Your task to perform on an android device: Open Google Maps and go to "Timeline" Image 0: 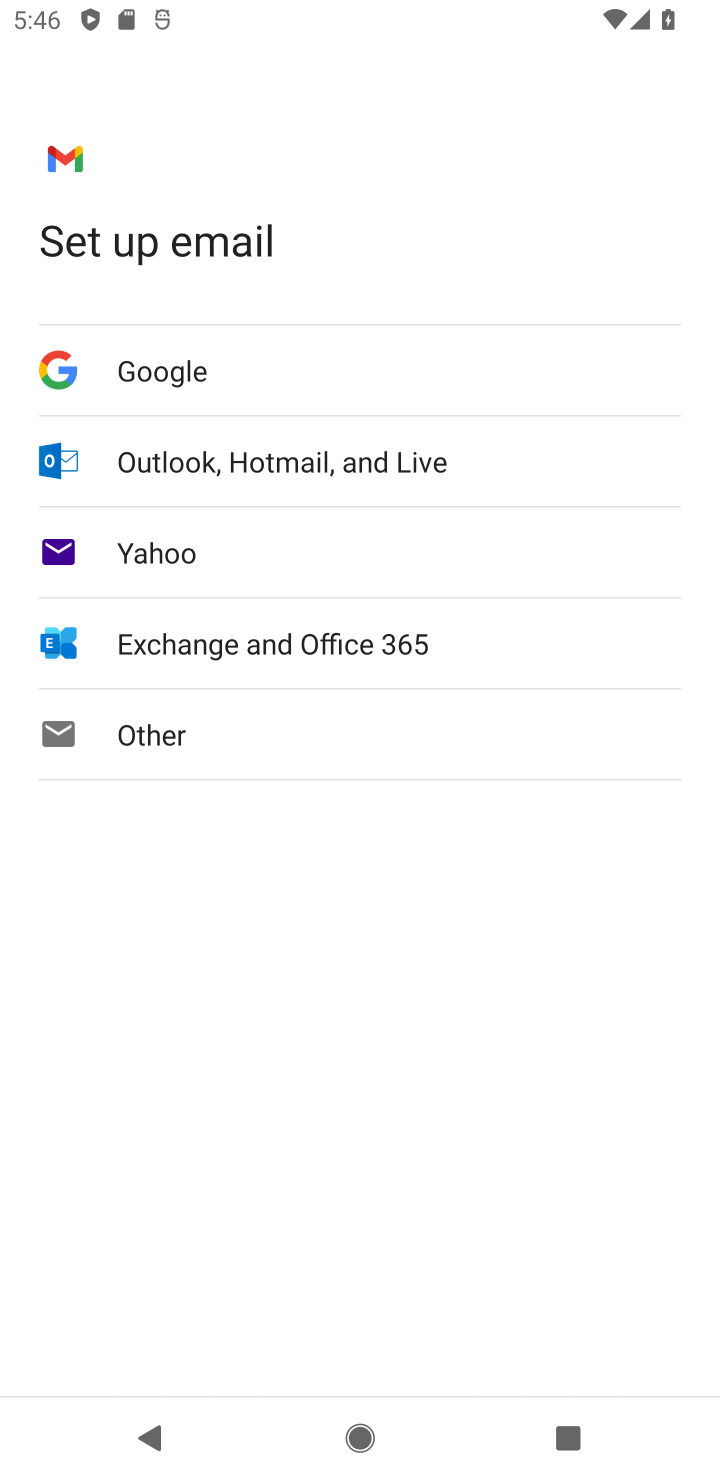
Step 0: press home button
Your task to perform on an android device: Open Google Maps and go to "Timeline" Image 1: 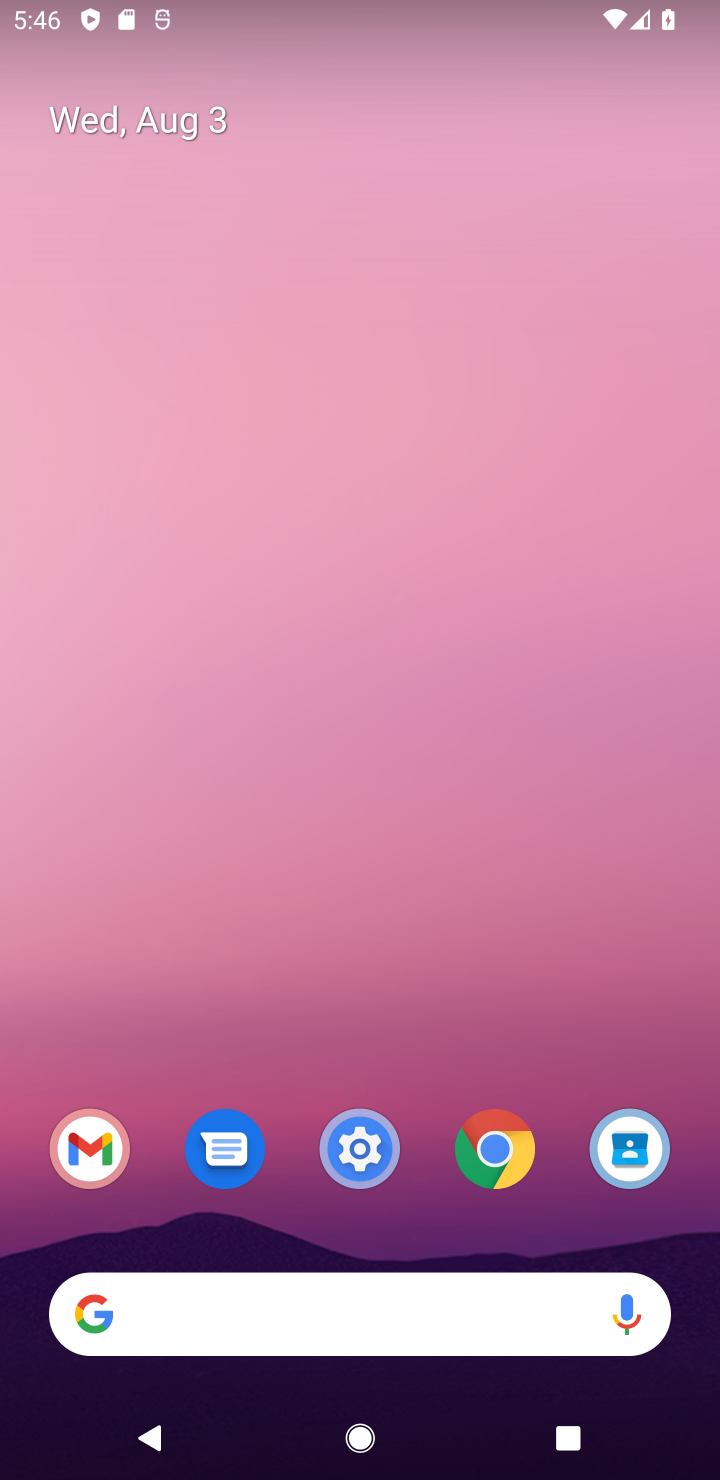
Step 1: drag from (349, 1269) to (324, 486)
Your task to perform on an android device: Open Google Maps and go to "Timeline" Image 2: 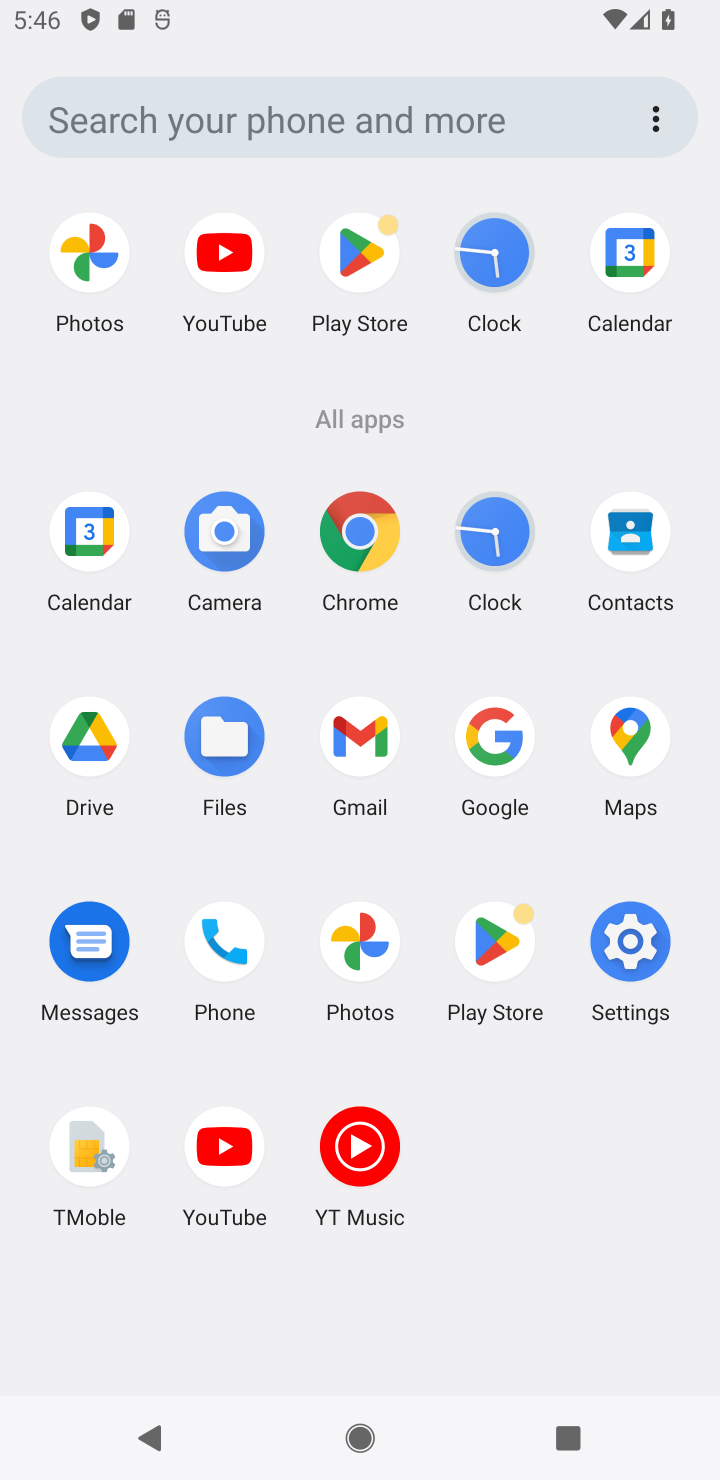
Step 2: click (612, 743)
Your task to perform on an android device: Open Google Maps and go to "Timeline" Image 3: 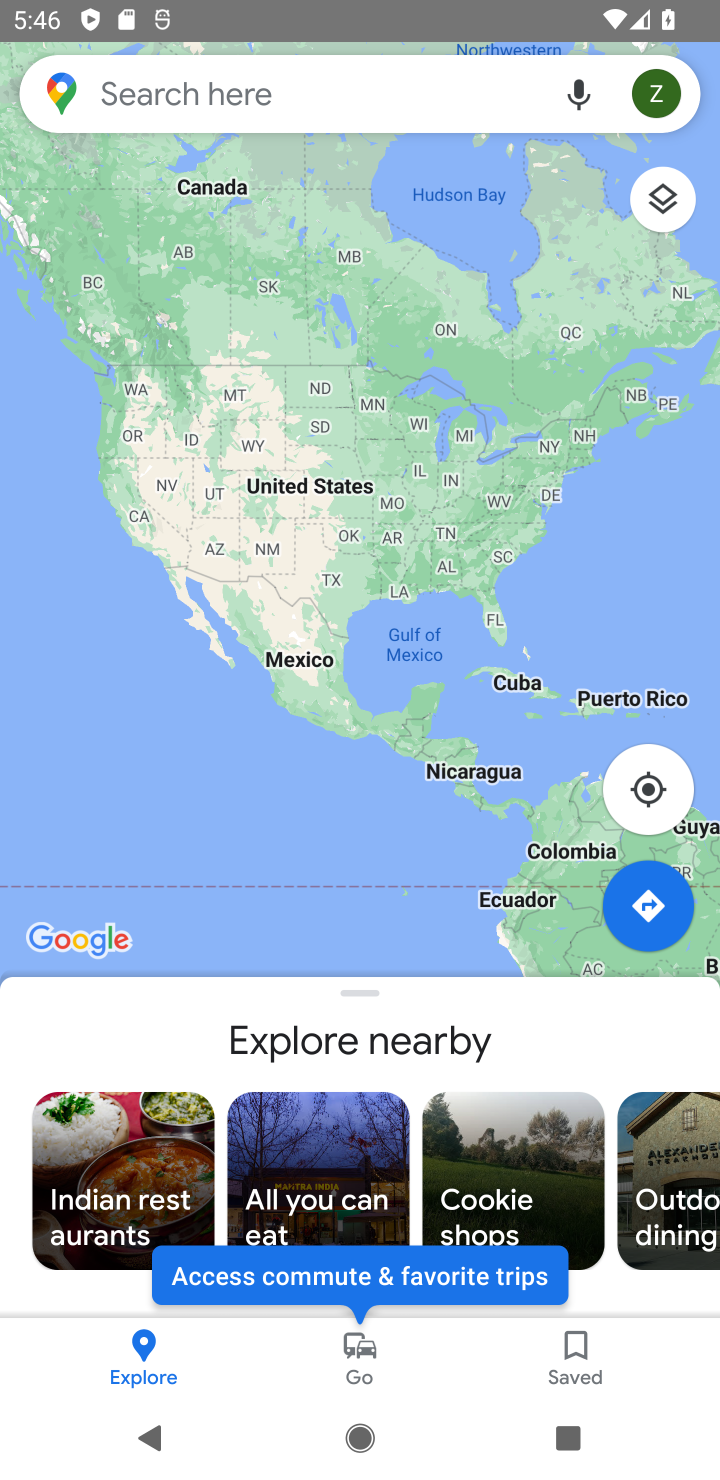
Step 3: click (645, 110)
Your task to perform on an android device: Open Google Maps and go to "Timeline" Image 4: 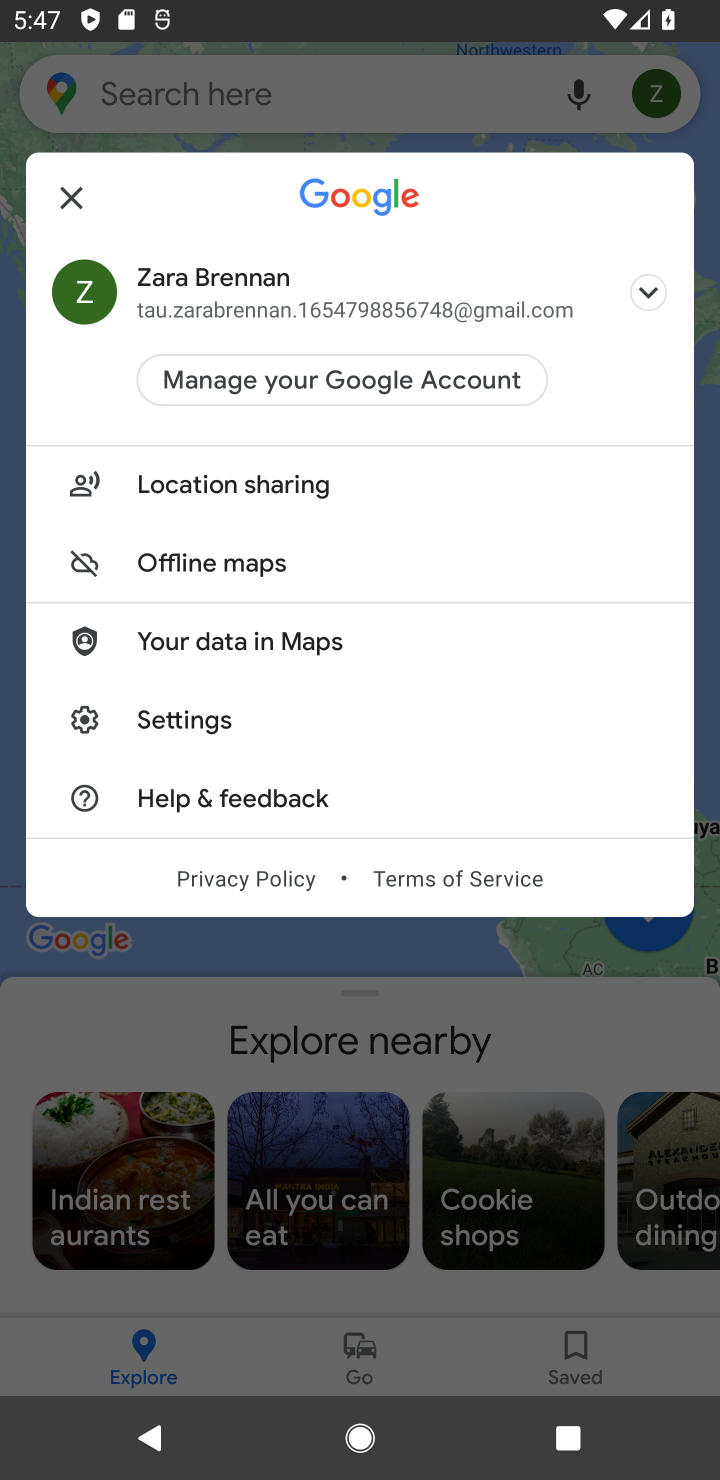
Step 4: click (233, 736)
Your task to perform on an android device: Open Google Maps and go to "Timeline" Image 5: 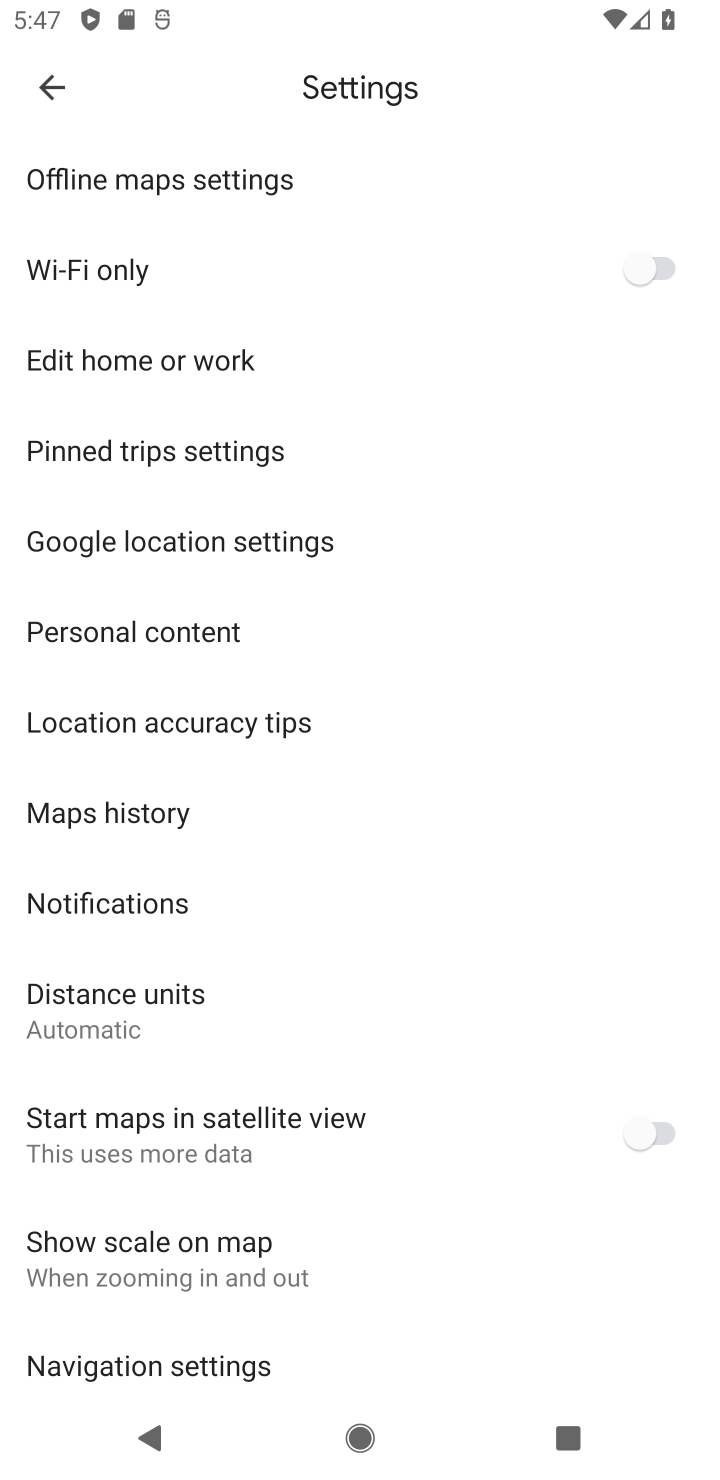
Step 5: task complete